Your task to perform on an android device: Open calendar and show me the second week of next month Image 0: 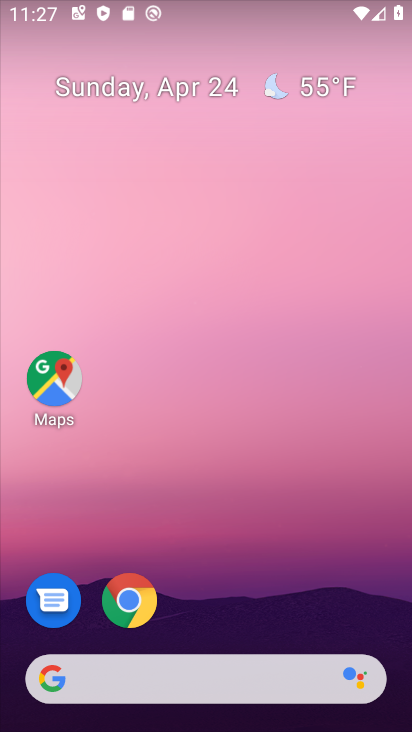
Step 0: click (177, 103)
Your task to perform on an android device: Open calendar and show me the second week of next month Image 1: 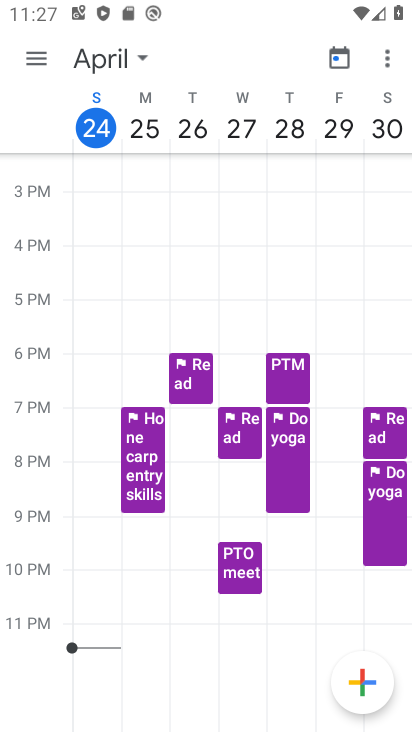
Step 1: click (102, 68)
Your task to perform on an android device: Open calendar and show me the second week of next month Image 2: 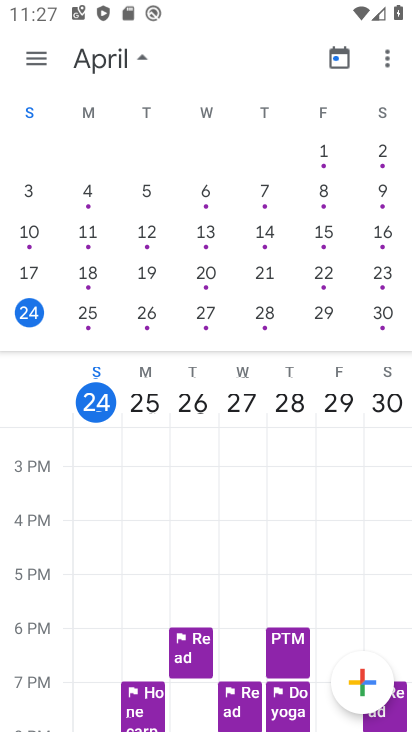
Step 2: drag from (364, 291) to (38, 246)
Your task to perform on an android device: Open calendar and show me the second week of next month Image 3: 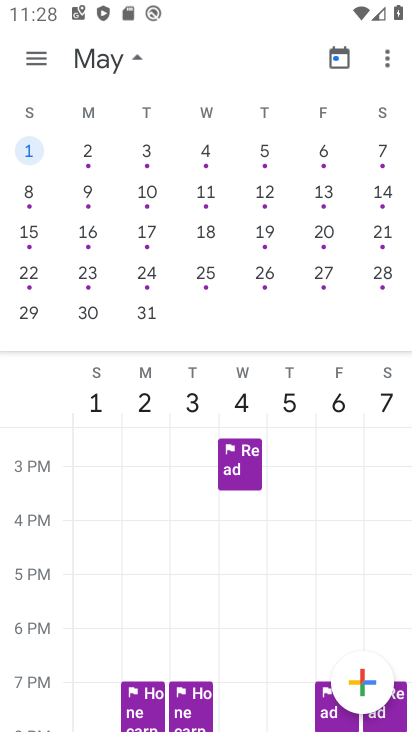
Step 3: click (203, 185)
Your task to perform on an android device: Open calendar and show me the second week of next month Image 4: 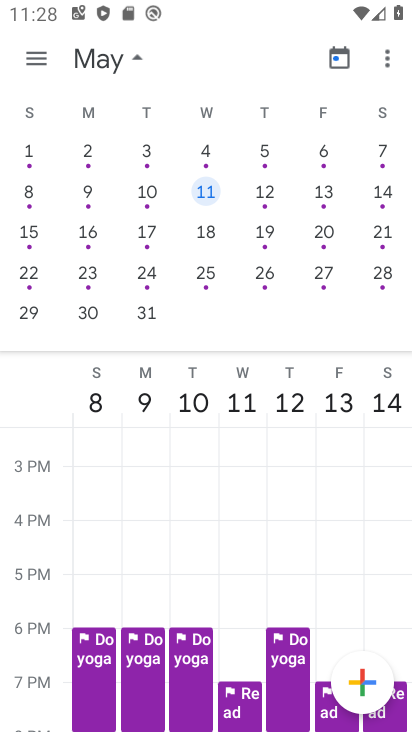
Step 4: task complete